Your task to perform on an android device: change notifications settings Image 0: 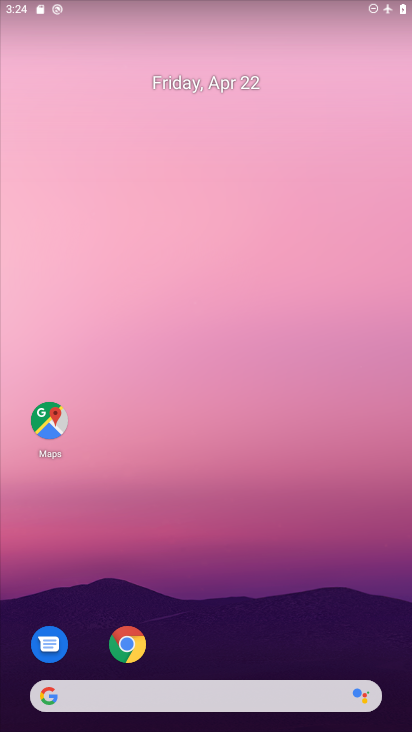
Step 0: drag from (209, 351) to (229, 138)
Your task to perform on an android device: change notifications settings Image 1: 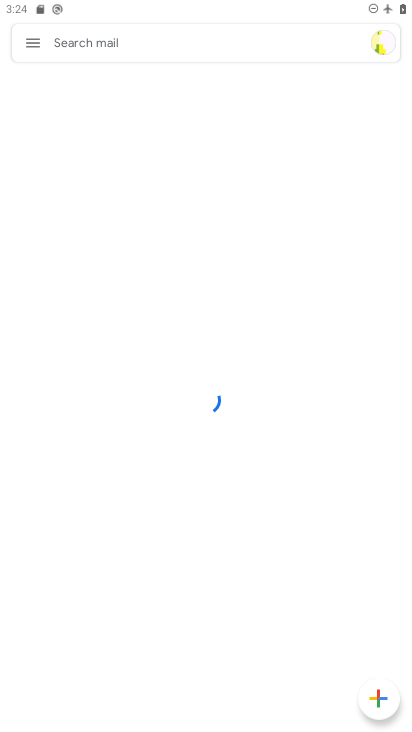
Step 1: press home button
Your task to perform on an android device: change notifications settings Image 2: 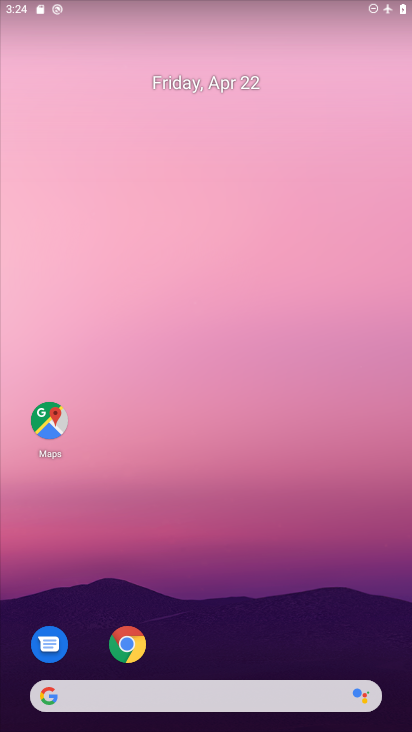
Step 2: drag from (273, 665) to (275, 144)
Your task to perform on an android device: change notifications settings Image 3: 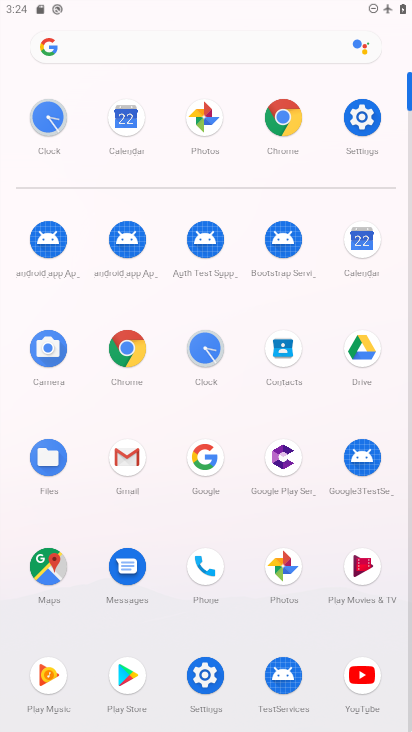
Step 3: click (358, 110)
Your task to perform on an android device: change notifications settings Image 4: 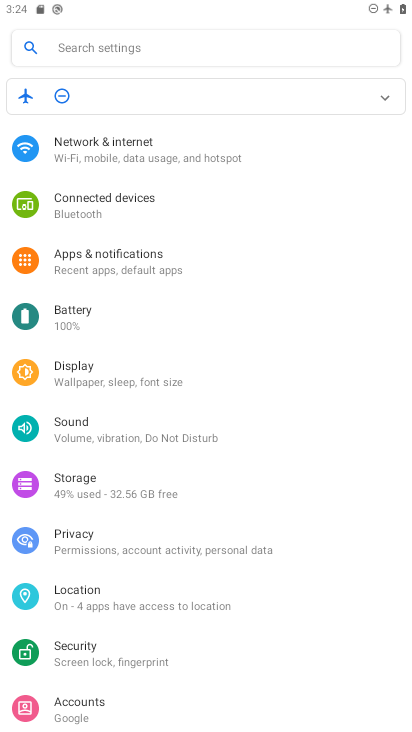
Step 4: click (115, 265)
Your task to perform on an android device: change notifications settings Image 5: 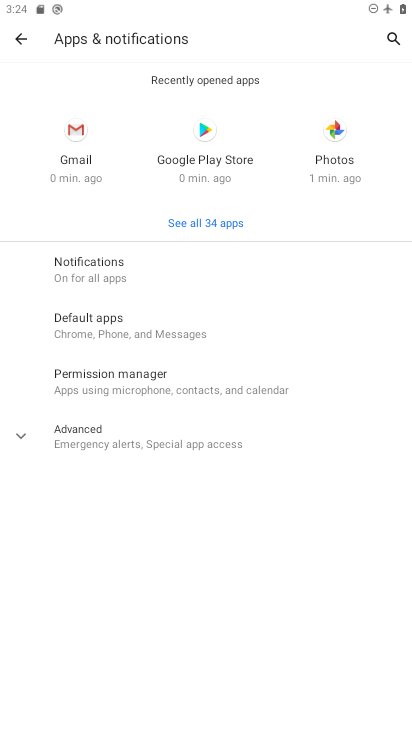
Step 5: click (68, 267)
Your task to perform on an android device: change notifications settings Image 6: 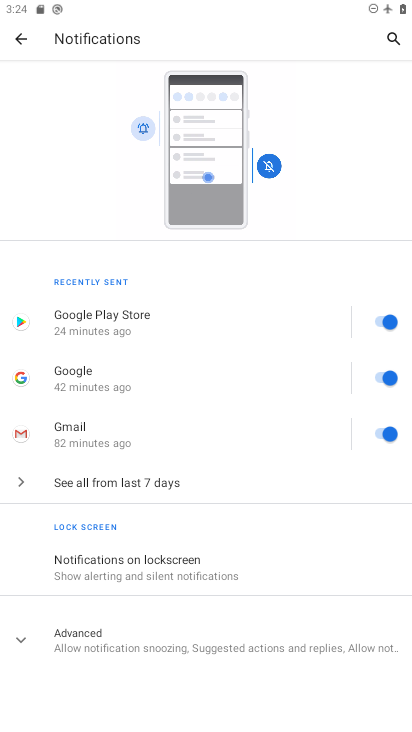
Step 6: drag from (297, 562) to (318, 102)
Your task to perform on an android device: change notifications settings Image 7: 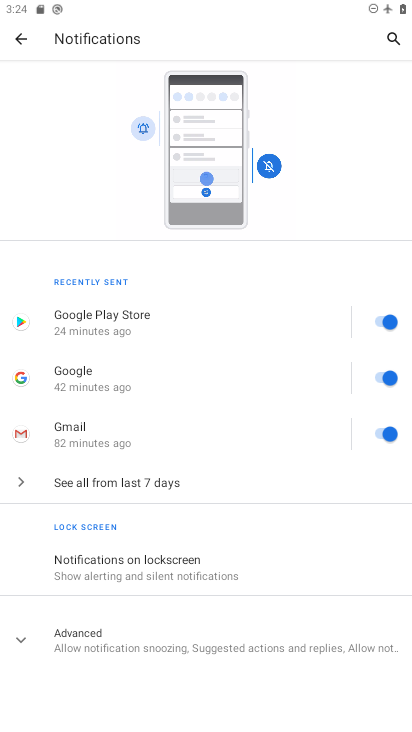
Step 7: drag from (294, 509) to (312, 65)
Your task to perform on an android device: change notifications settings Image 8: 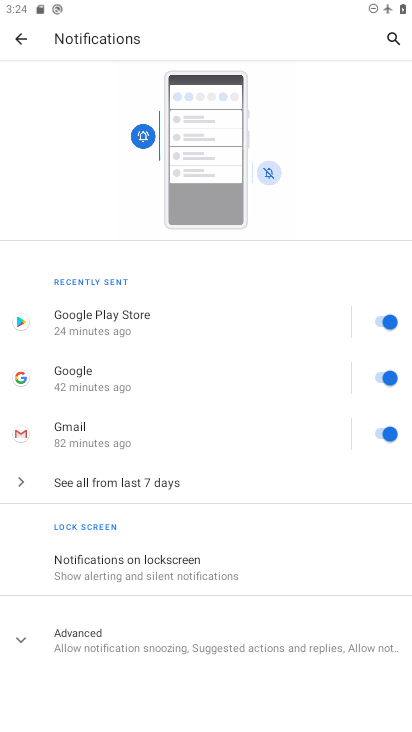
Step 8: click (175, 634)
Your task to perform on an android device: change notifications settings Image 9: 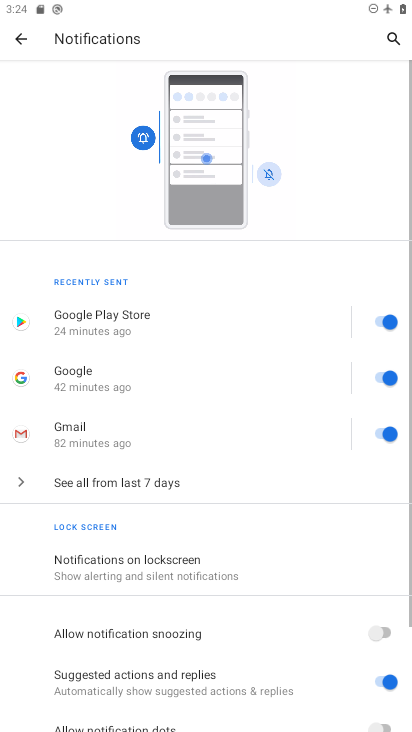
Step 9: drag from (265, 622) to (297, 308)
Your task to perform on an android device: change notifications settings Image 10: 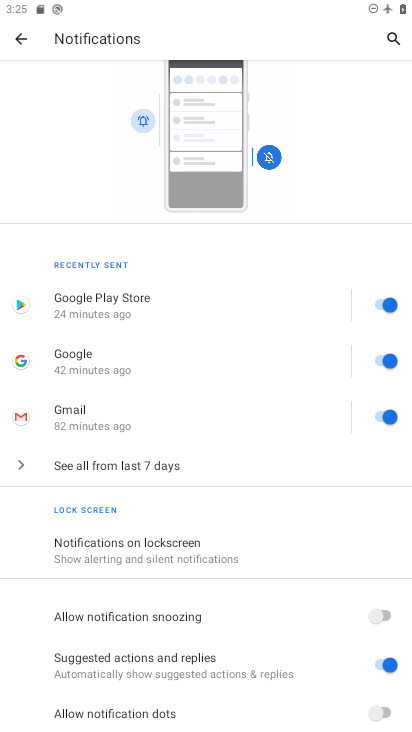
Step 10: click (377, 619)
Your task to perform on an android device: change notifications settings Image 11: 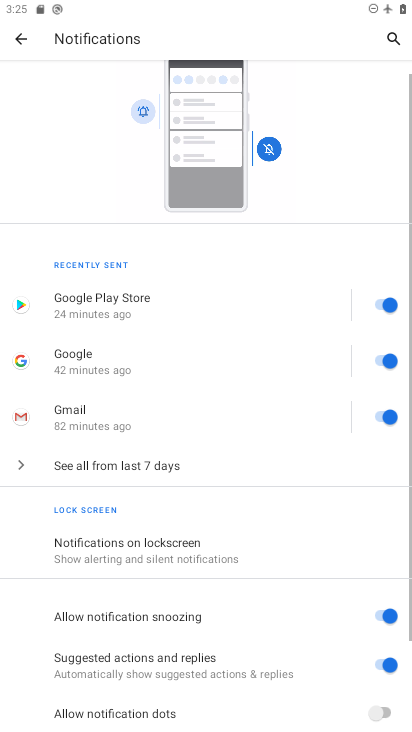
Step 11: task complete